Your task to perform on an android device: Open maps Image 0: 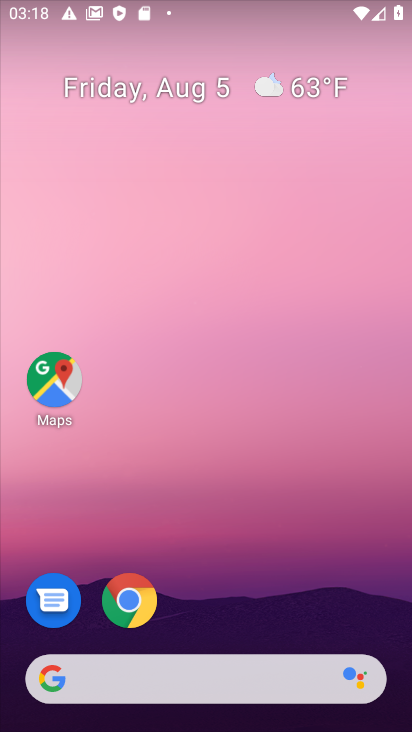
Step 0: click (54, 385)
Your task to perform on an android device: Open maps Image 1: 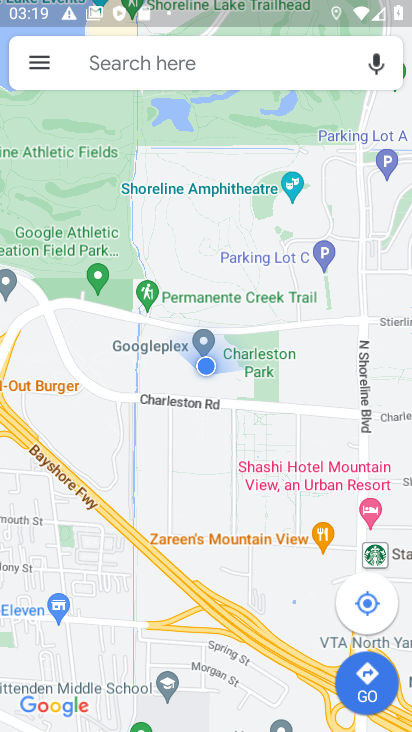
Step 1: task complete